Your task to perform on an android device: allow notifications from all sites in the chrome app Image 0: 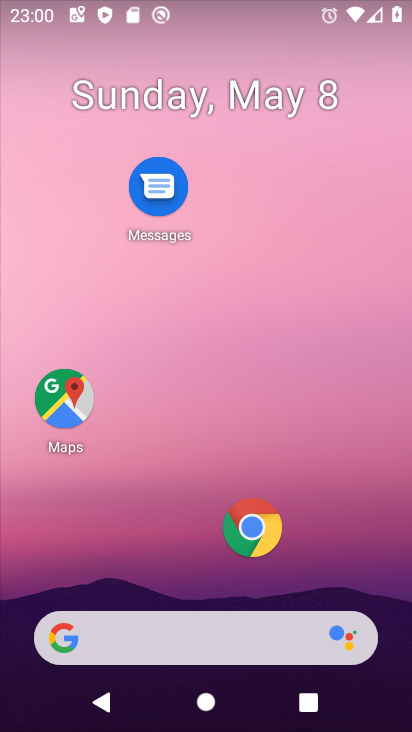
Step 0: click (254, 532)
Your task to perform on an android device: allow notifications from all sites in the chrome app Image 1: 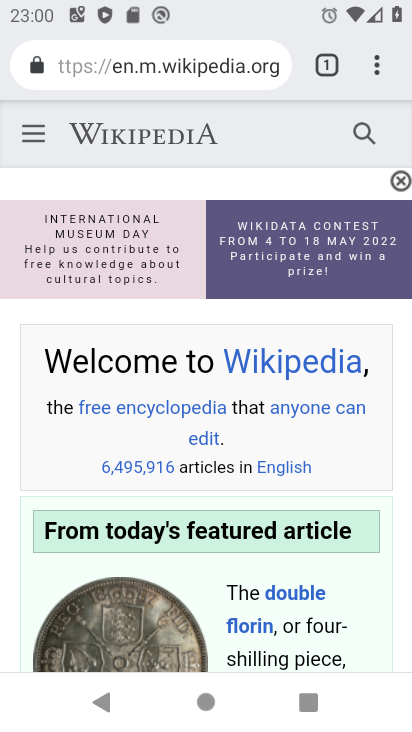
Step 1: click (369, 64)
Your task to perform on an android device: allow notifications from all sites in the chrome app Image 2: 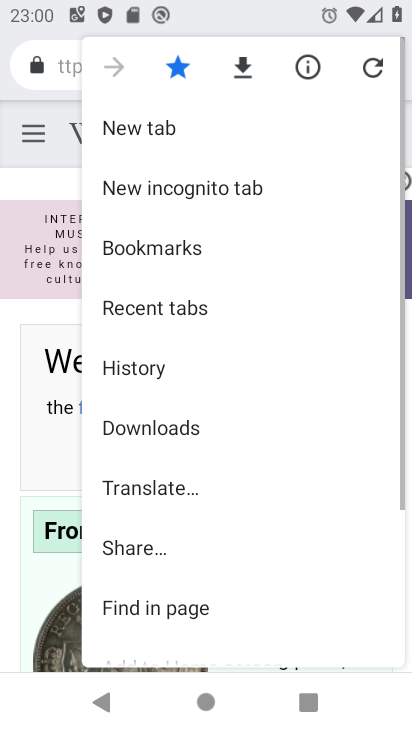
Step 2: drag from (271, 547) to (237, 181)
Your task to perform on an android device: allow notifications from all sites in the chrome app Image 3: 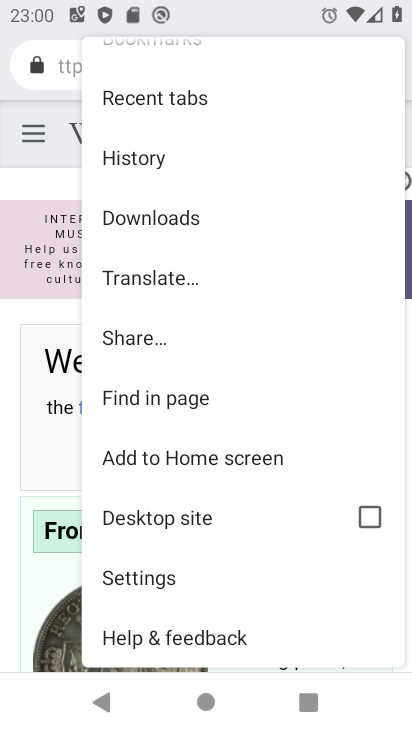
Step 3: click (154, 580)
Your task to perform on an android device: allow notifications from all sites in the chrome app Image 4: 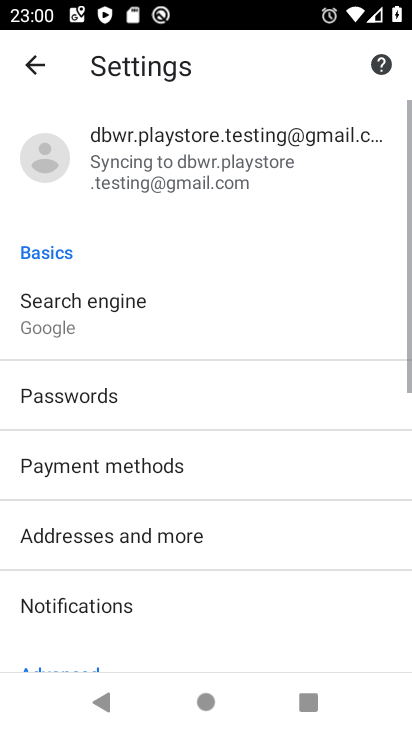
Step 4: drag from (154, 580) to (165, 104)
Your task to perform on an android device: allow notifications from all sites in the chrome app Image 5: 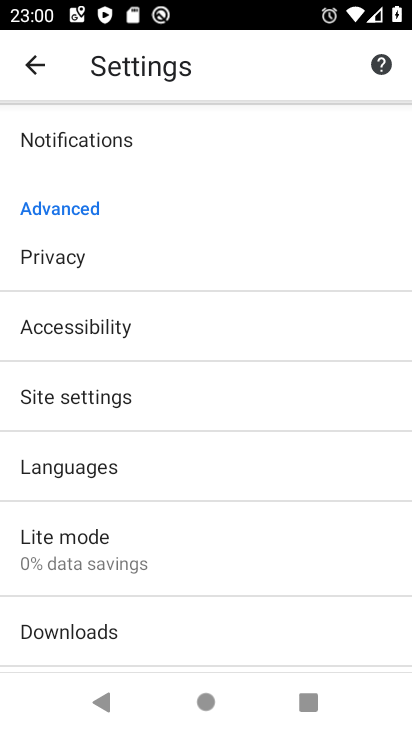
Step 5: click (95, 407)
Your task to perform on an android device: allow notifications from all sites in the chrome app Image 6: 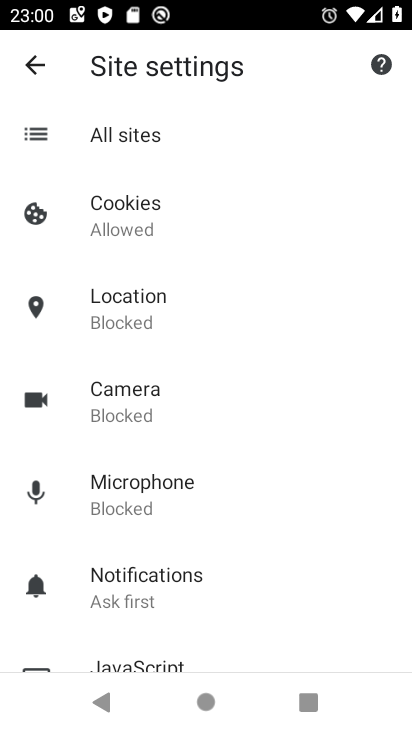
Step 6: click (162, 585)
Your task to perform on an android device: allow notifications from all sites in the chrome app Image 7: 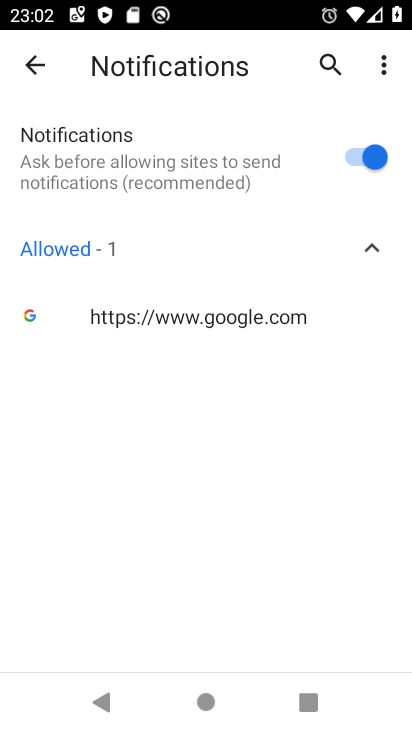
Step 7: task complete